Your task to perform on an android device: change notifications settings Image 0: 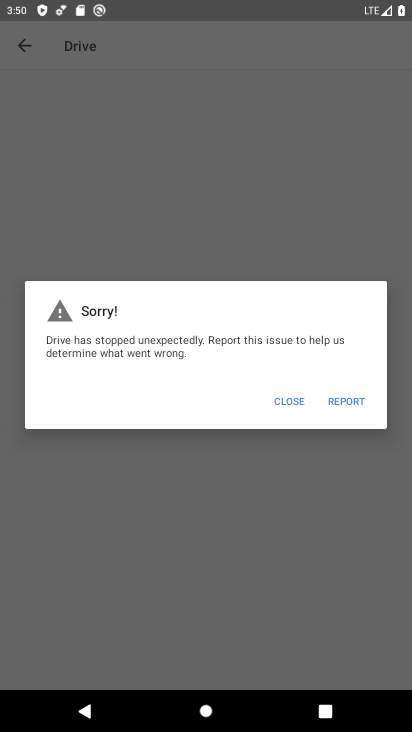
Step 0: click (316, 580)
Your task to perform on an android device: change notifications settings Image 1: 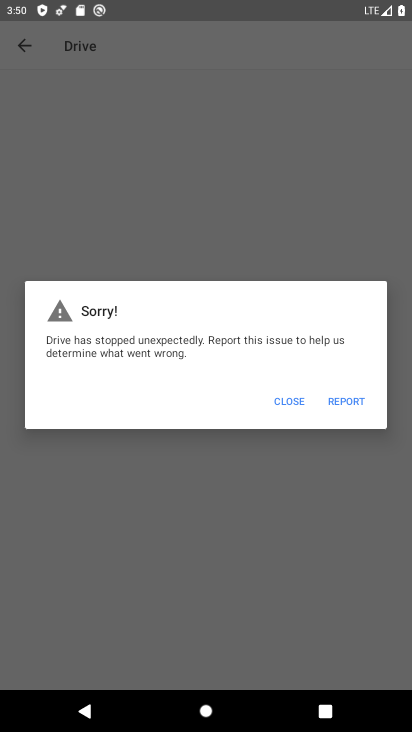
Step 1: press home button
Your task to perform on an android device: change notifications settings Image 2: 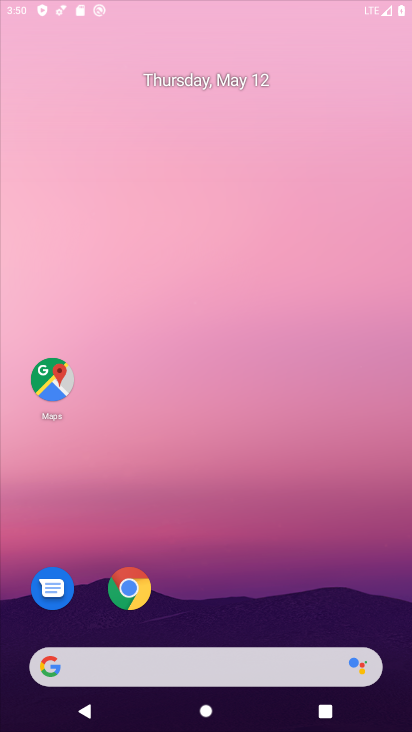
Step 2: drag from (183, 647) to (230, 160)
Your task to perform on an android device: change notifications settings Image 3: 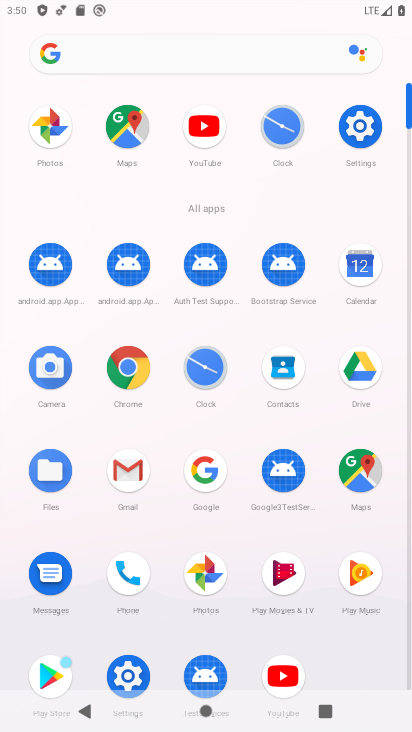
Step 3: click (356, 124)
Your task to perform on an android device: change notifications settings Image 4: 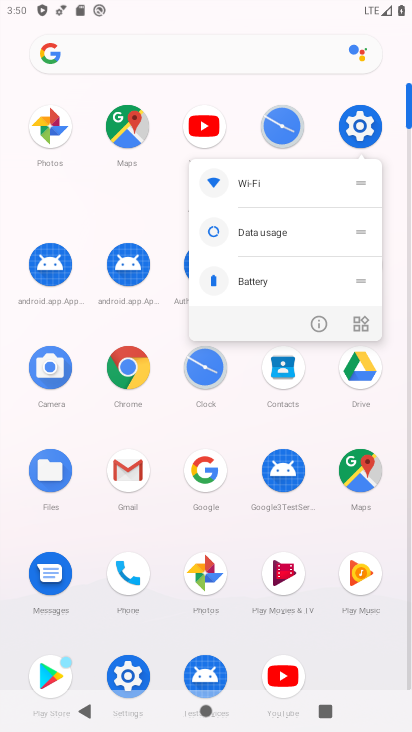
Step 4: click (308, 318)
Your task to perform on an android device: change notifications settings Image 5: 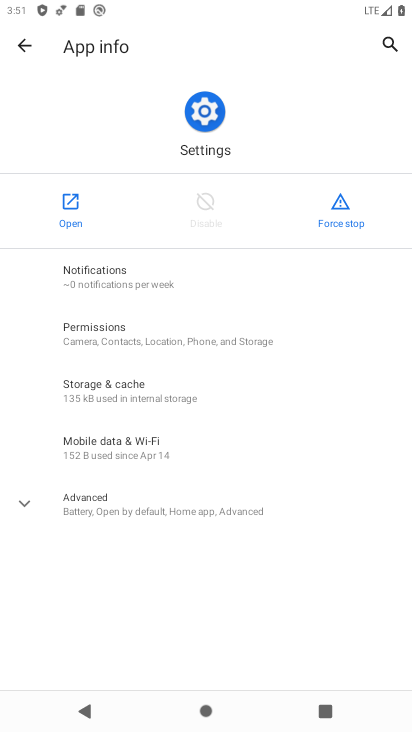
Step 5: click (65, 196)
Your task to perform on an android device: change notifications settings Image 6: 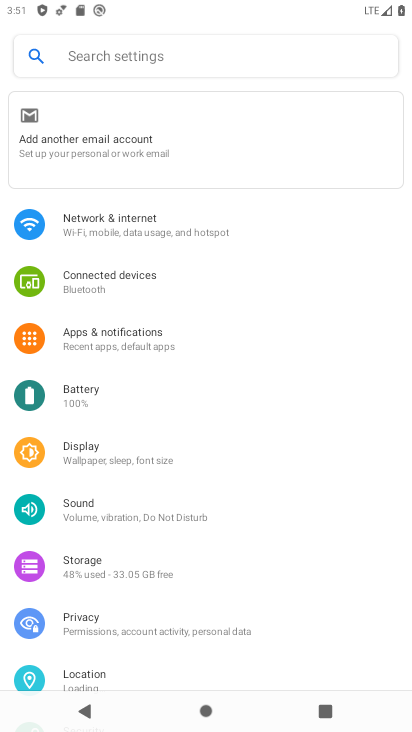
Step 6: click (149, 353)
Your task to perform on an android device: change notifications settings Image 7: 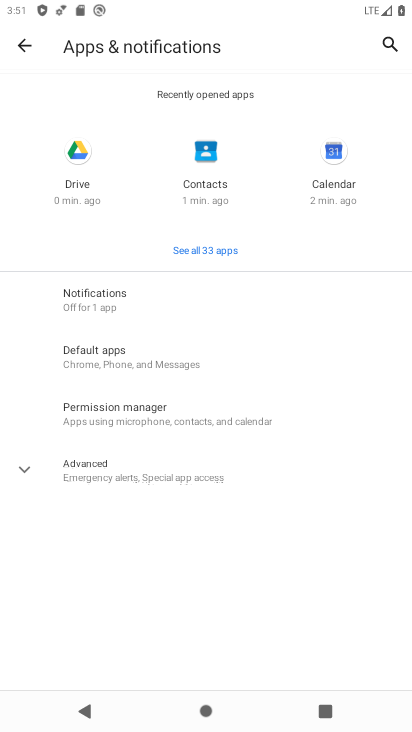
Step 7: click (104, 308)
Your task to perform on an android device: change notifications settings Image 8: 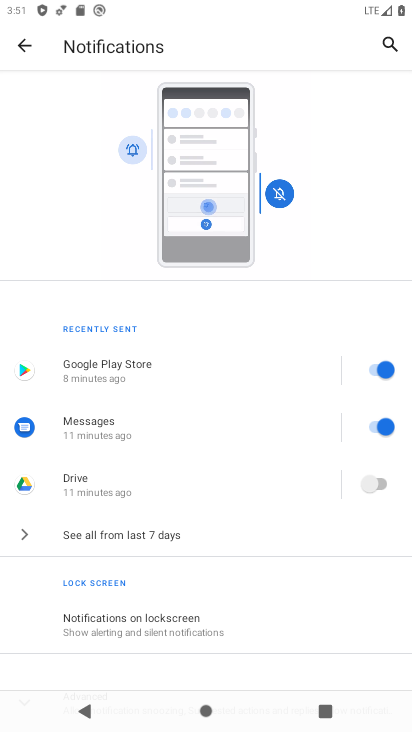
Step 8: click (375, 479)
Your task to perform on an android device: change notifications settings Image 9: 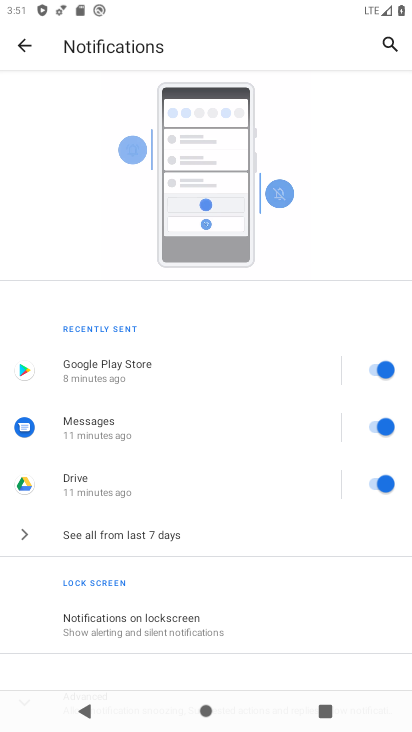
Step 9: task complete